Your task to perform on an android device: toggle sleep mode Image 0: 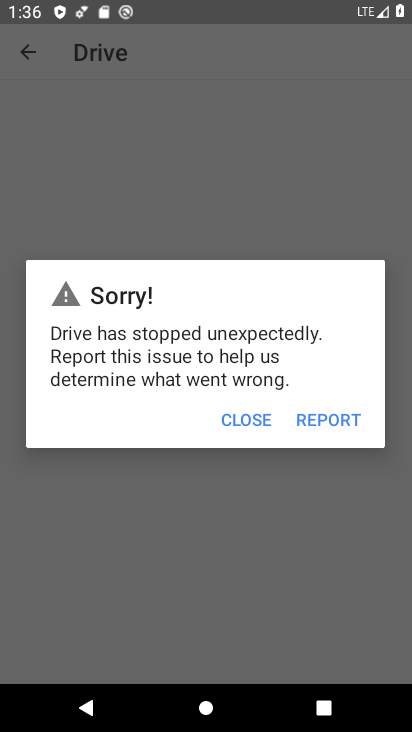
Step 0: press home button
Your task to perform on an android device: toggle sleep mode Image 1: 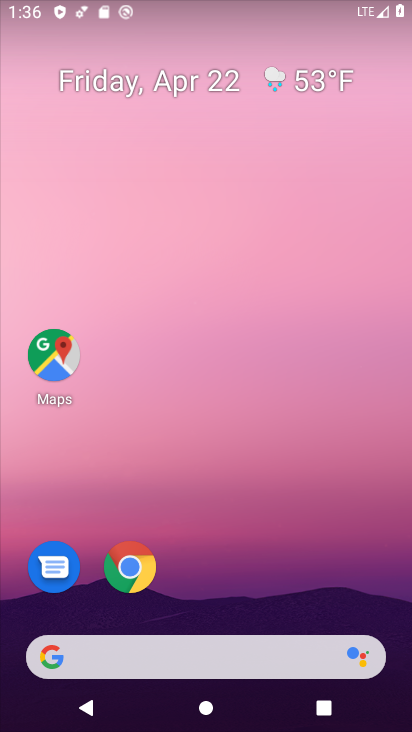
Step 1: drag from (285, 612) to (221, 85)
Your task to perform on an android device: toggle sleep mode Image 2: 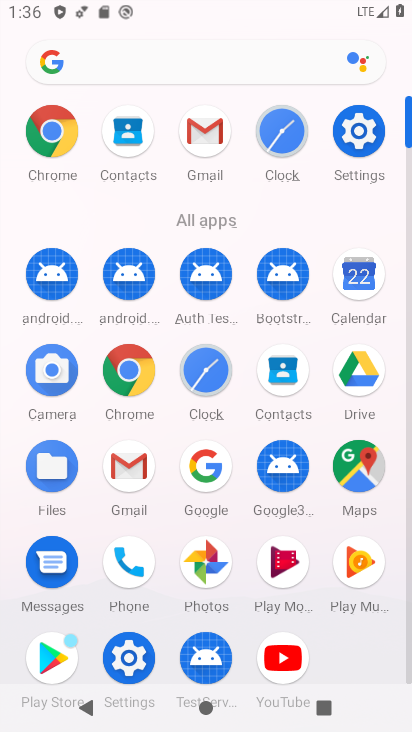
Step 2: click (131, 661)
Your task to perform on an android device: toggle sleep mode Image 3: 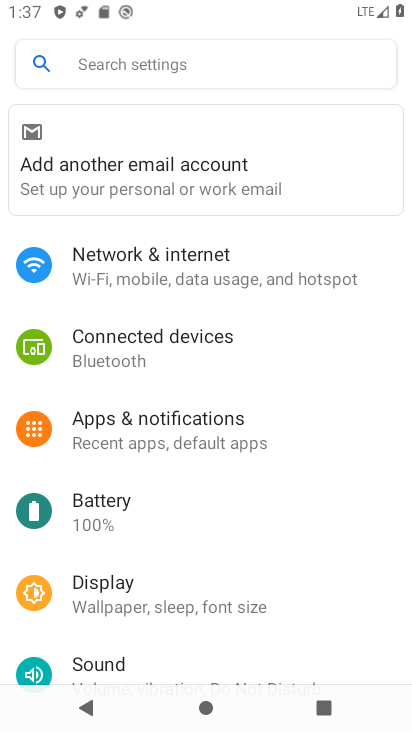
Step 3: click (145, 594)
Your task to perform on an android device: toggle sleep mode Image 4: 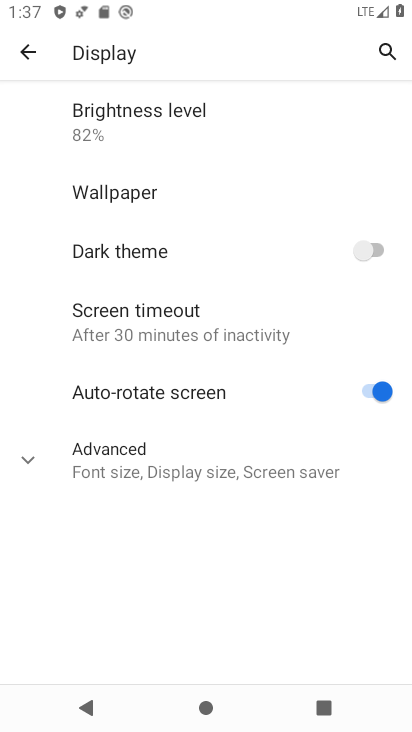
Step 4: task complete